Your task to perform on an android device: Open Google Chrome and click the shortcut for Amazon.com Image 0: 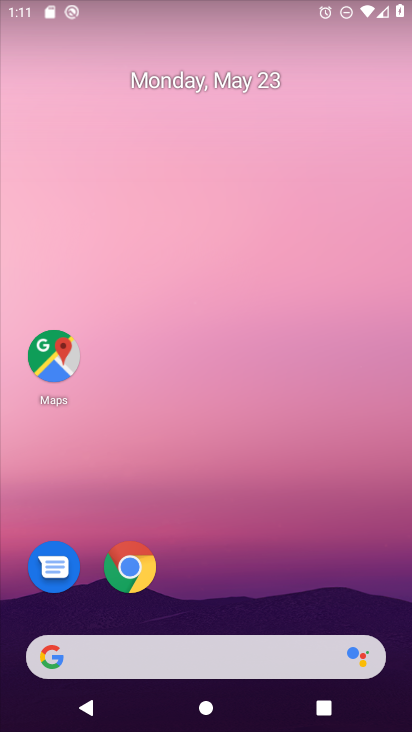
Step 0: click (127, 571)
Your task to perform on an android device: Open Google Chrome and click the shortcut for Amazon.com Image 1: 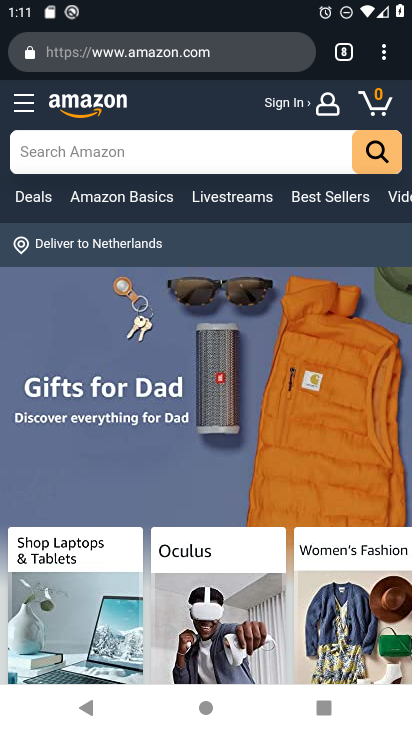
Step 1: task complete